Your task to perform on an android device: Search for vegetarian restaurants on Maps Image 0: 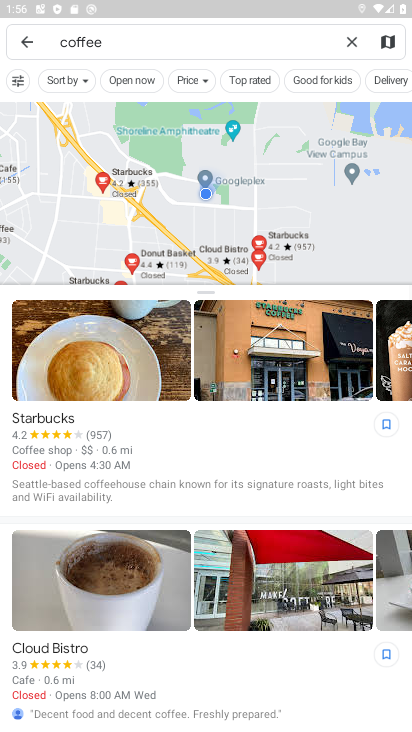
Step 0: press home button
Your task to perform on an android device: Search for vegetarian restaurants on Maps Image 1: 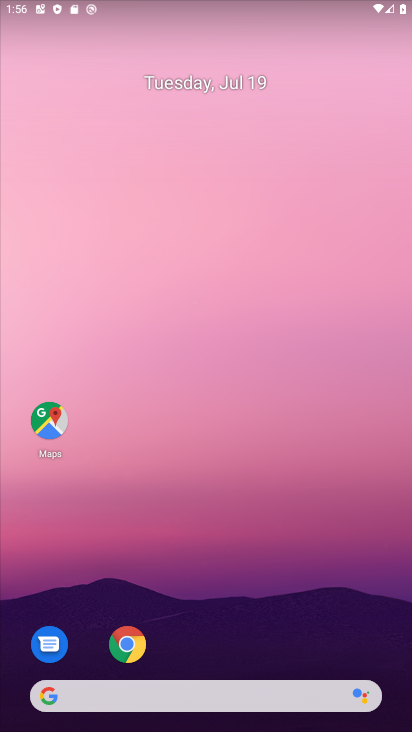
Step 1: click (188, 652)
Your task to perform on an android device: Search for vegetarian restaurants on Maps Image 2: 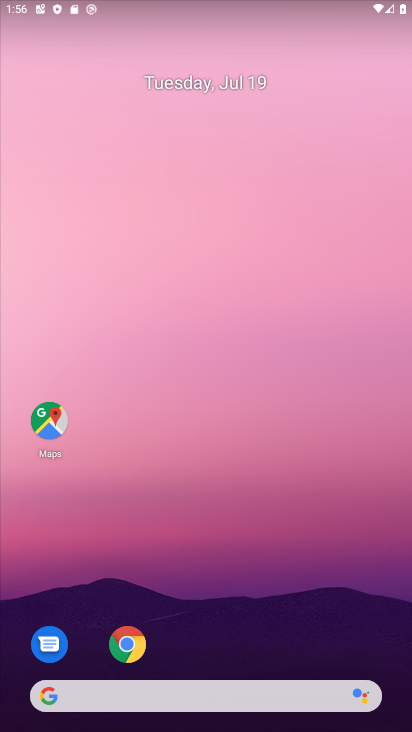
Step 2: drag from (188, 652) to (47, 437)
Your task to perform on an android device: Search for vegetarian restaurants on Maps Image 3: 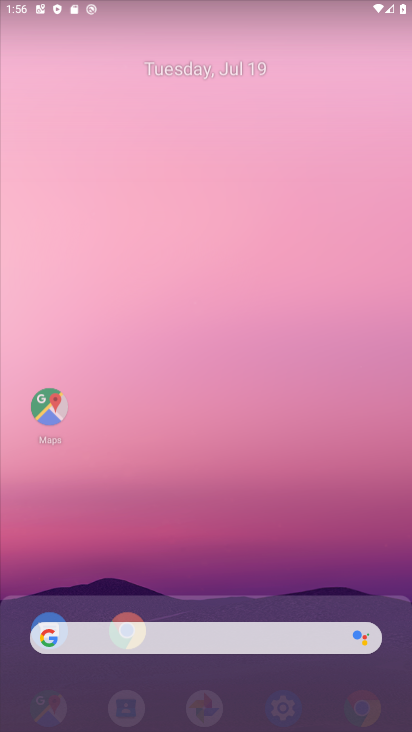
Step 3: click (47, 437)
Your task to perform on an android device: Search for vegetarian restaurants on Maps Image 4: 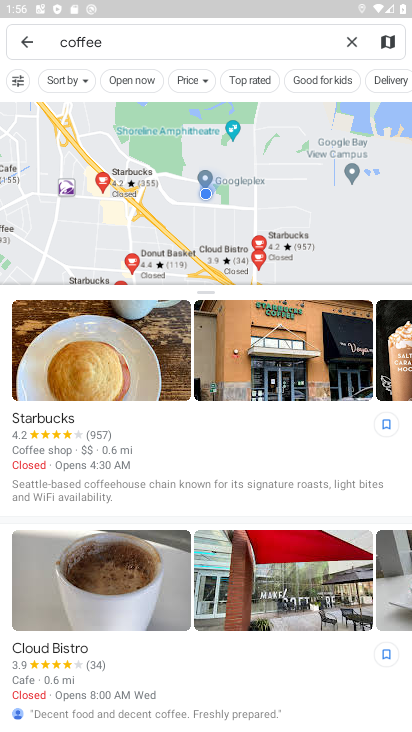
Step 4: click (357, 39)
Your task to perform on an android device: Search for vegetarian restaurants on Maps Image 5: 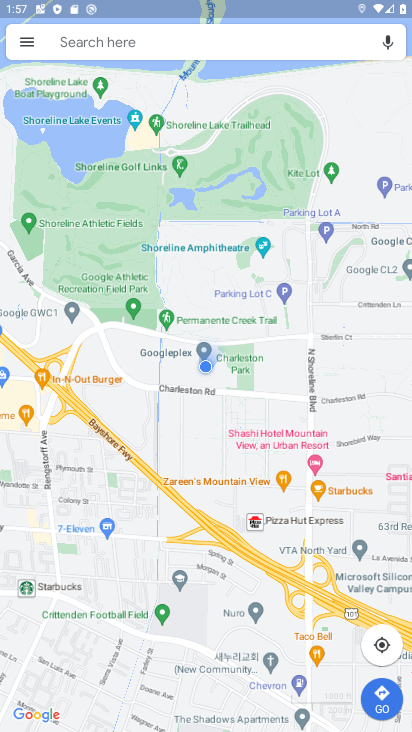
Step 5: click (243, 50)
Your task to perform on an android device: Search for vegetarian restaurants on Maps Image 6: 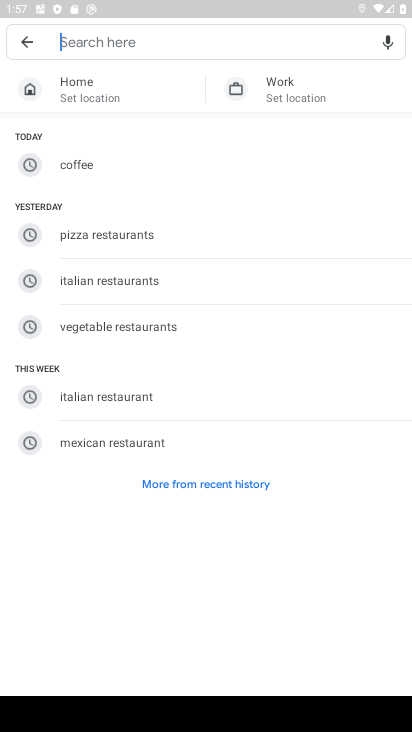
Step 6: type "vegetarian restaurants"
Your task to perform on an android device: Search for vegetarian restaurants on Maps Image 7: 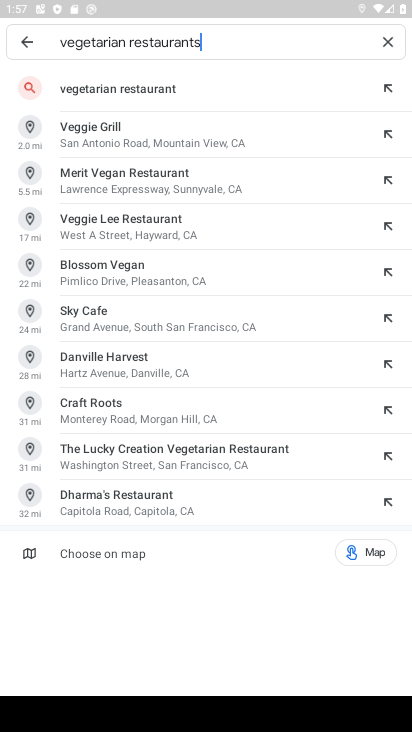
Step 7: click (124, 94)
Your task to perform on an android device: Search for vegetarian restaurants on Maps Image 8: 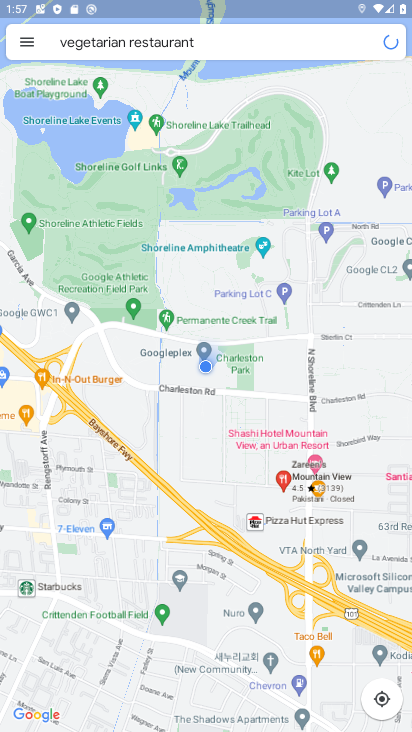
Step 8: task complete